Your task to perform on an android device: Open my contact list Image 0: 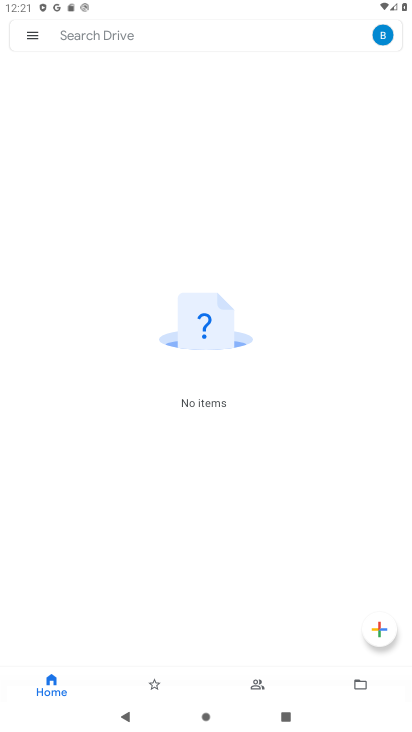
Step 0: press home button
Your task to perform on an android device: Open my contact list Image 1: 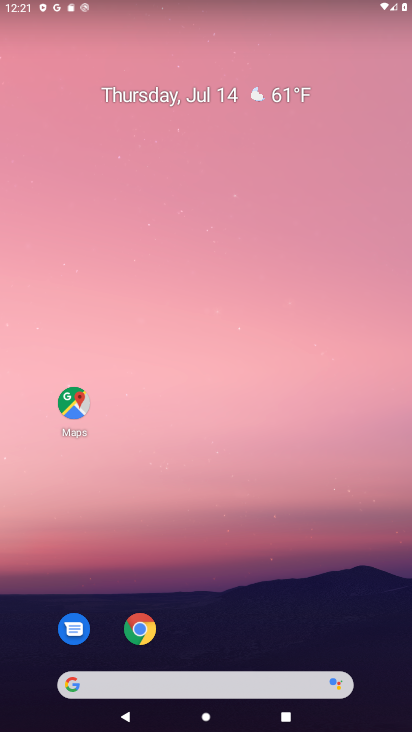
Step 1: drag from (275, 567) to (254, 191)
Your task to perform on an android device: Open my contact list Image 2: 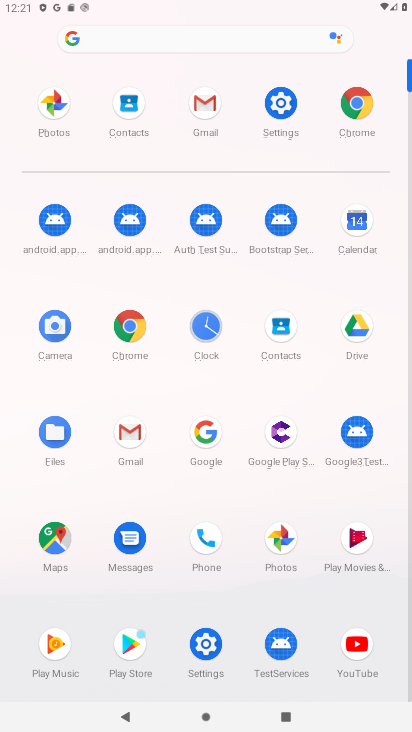
Step 2: click (280, 314)
Your task to perform on an android device: Open my contact list Image 3: 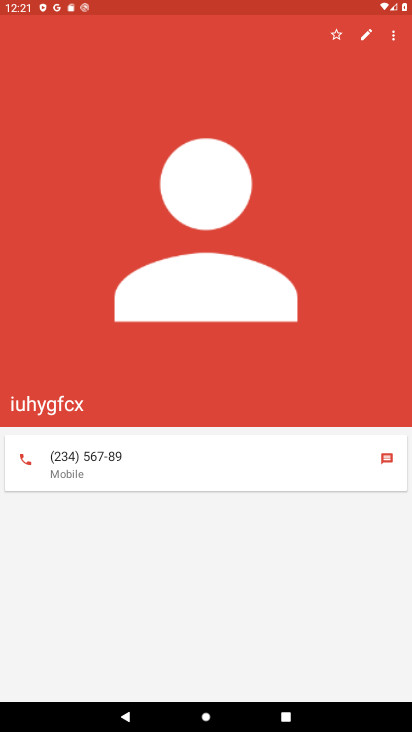
Step 3: task complete